Your task to perform on an android device: Open Reddit.com Image 0: 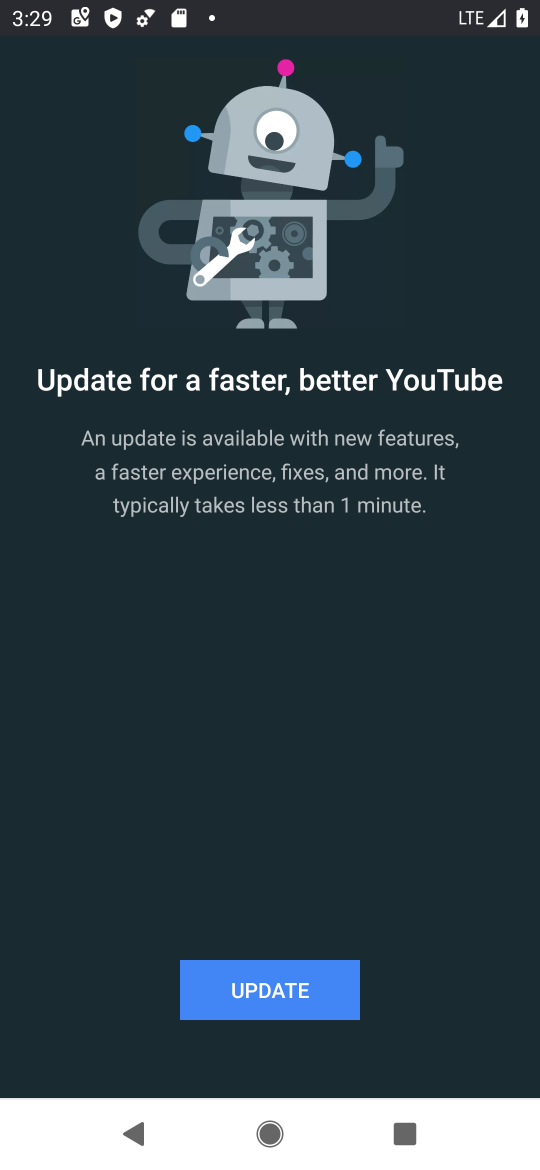
Step 0: press home button
Your task to perform on an android device: Open Reddit.com Image 1: 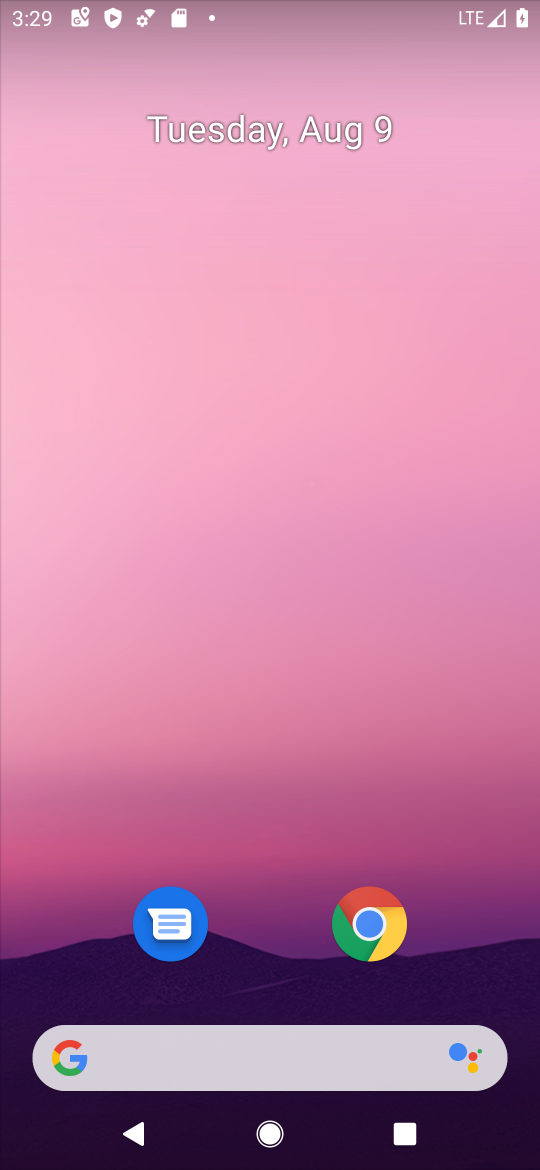
Step 1: click (371, 926)
Your task to perform on an android device: Open Reddit.com Image 2: 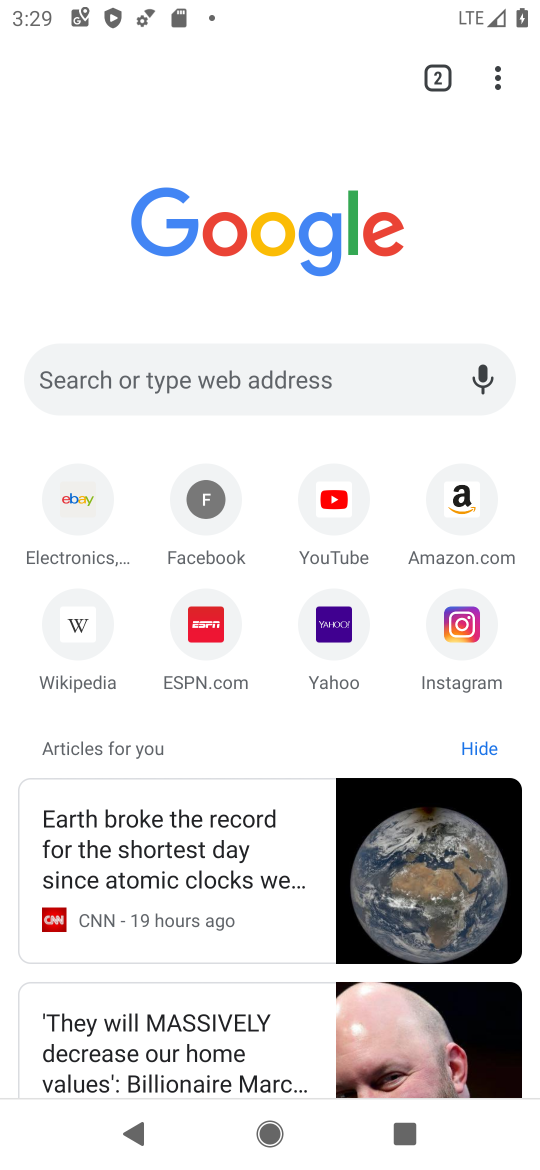
Step 2: click (295, 363)
Your task to perform on an android device: Open Reddit.com Image 3: 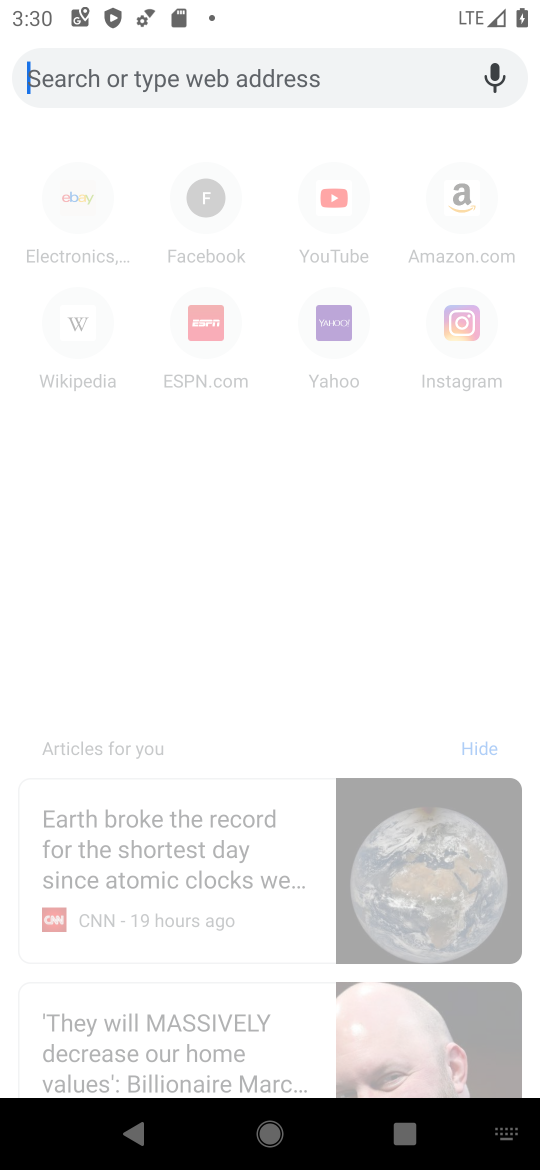
Step 3: type "Reddit.com"
Your task to perform on an android device: Open Reddit.com Image 4: 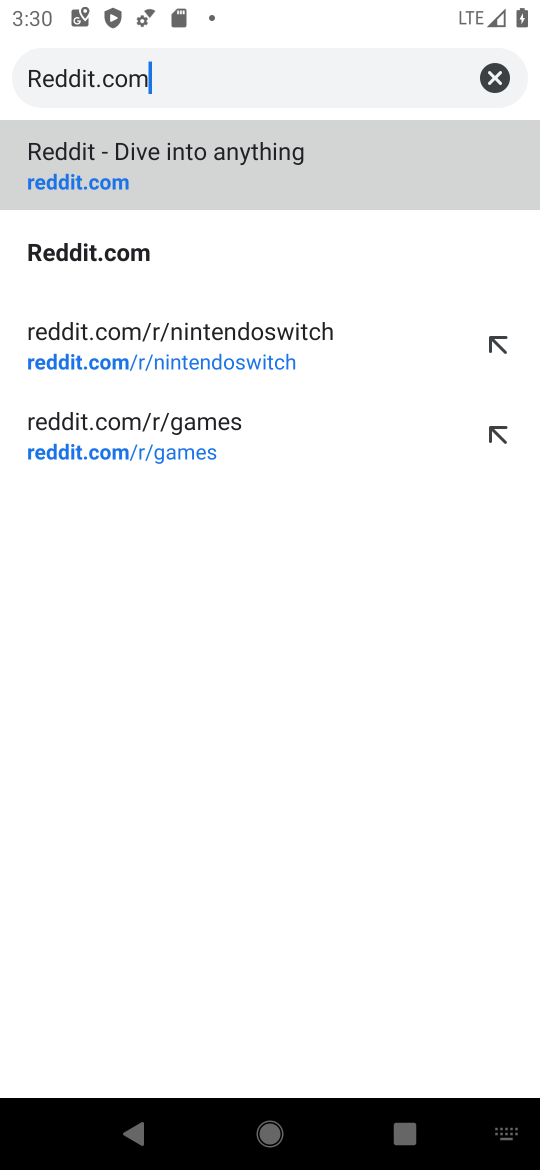
Step 4: click (135, 262)
Your task to perform on an android device: Open Reddit.com Image 5: 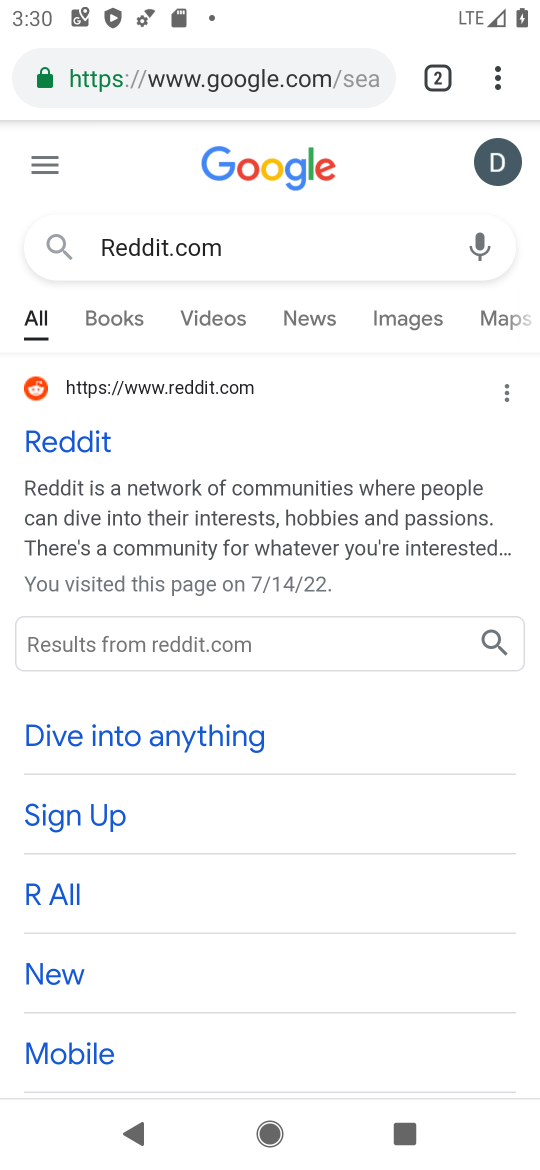
Step 5: click (103, 446)
Your task to perform on an android device: Open Reddit.com Image 6: 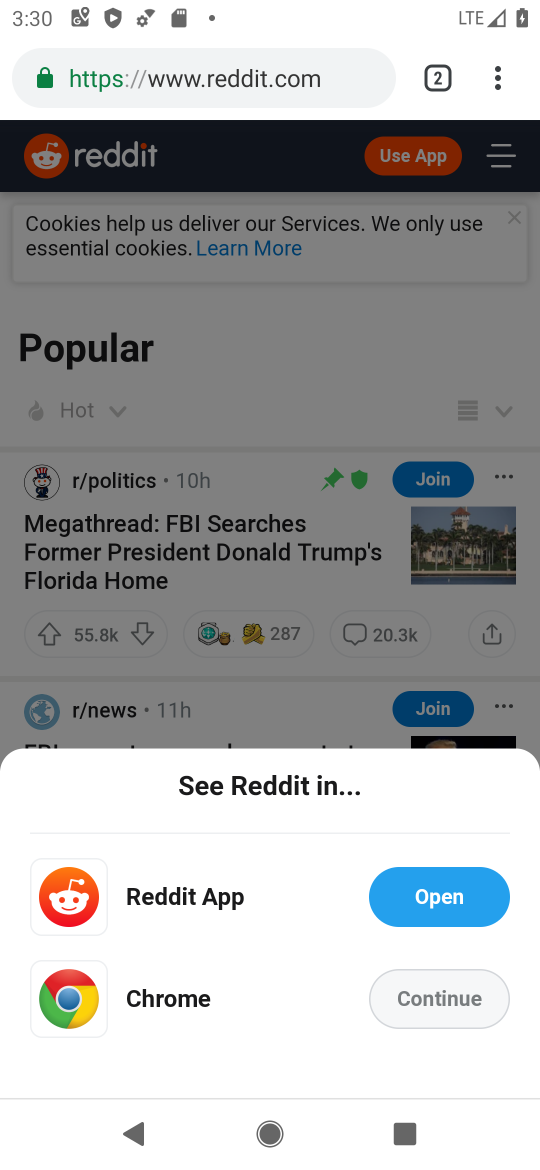
Step 6: click (436, 999)
Your task to perform on an android device: Open Reddit.com Image 7: 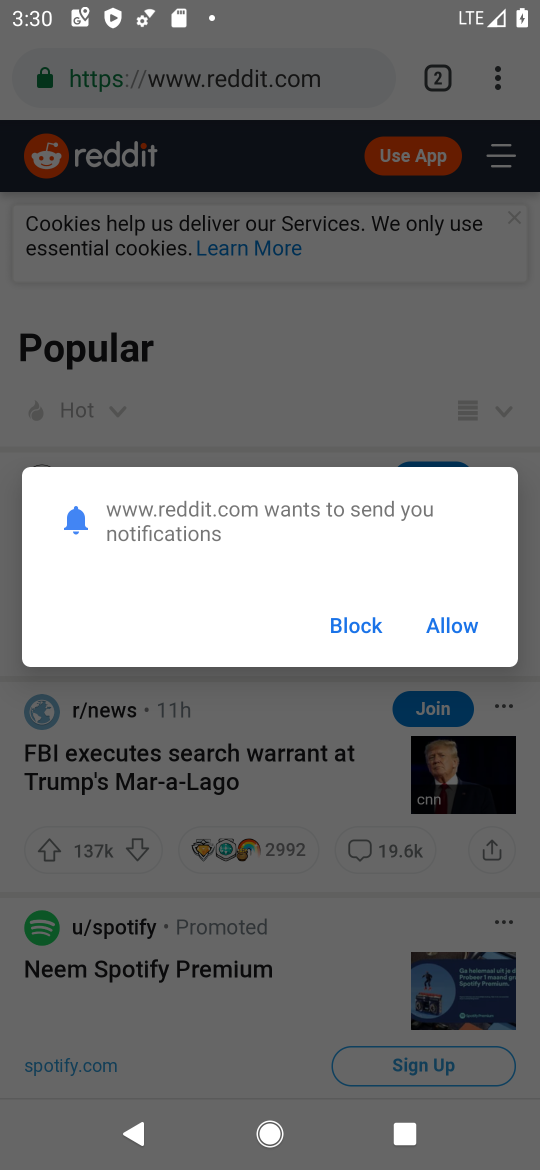
Step 7: click (441, 631)
Your task to perform on an android device: Open Reddit.com Image 8: 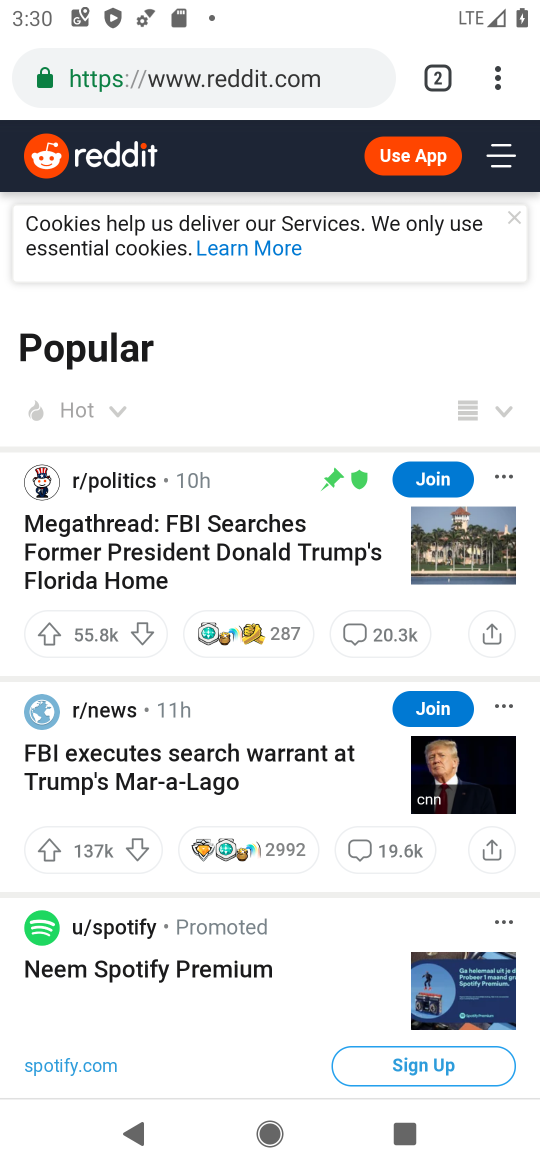
Step 8: task complete